Your task to perform on an android device: Open display settings Image 0: 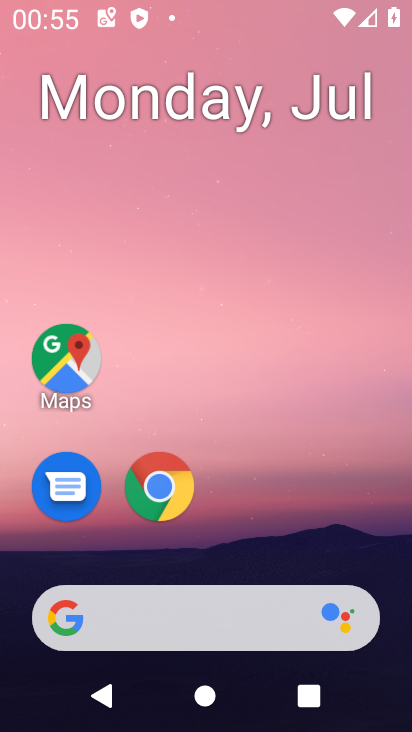
Step 0: press home button
Your task to perform on an android device: Open display settings Image 1: 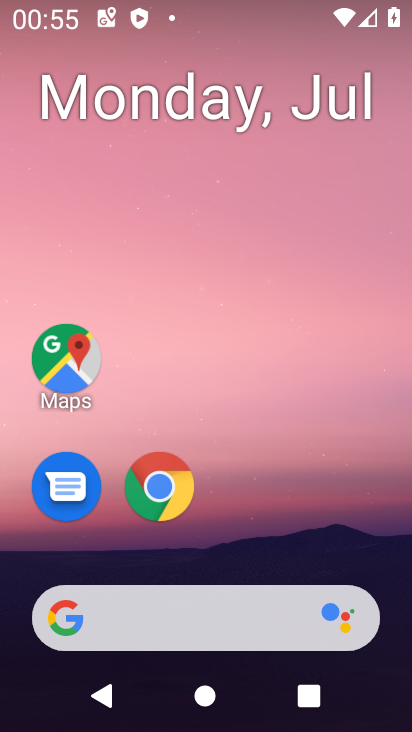
Step 1: drag from (345, 533) to (369, 106)
Your task to perform on an android device: Open display settings Image 2: 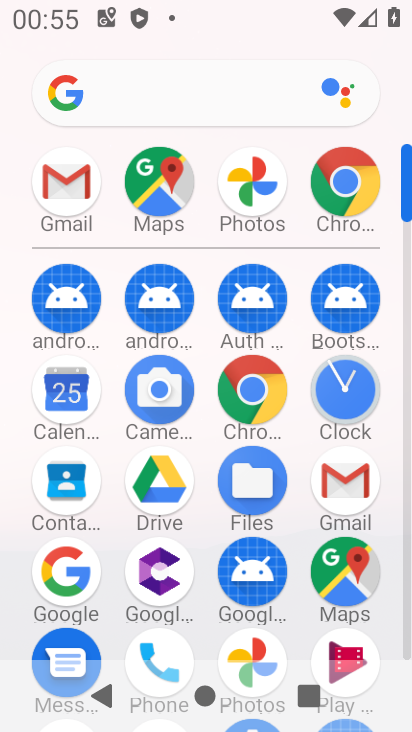
Step 2: drag from (402, 424) to (404, 333)
Your task to perform on an android device: Open display settings Image 3: 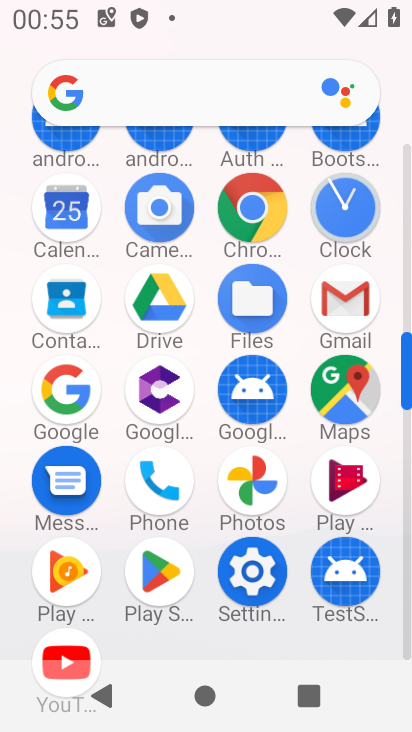
Step 3: click (260, 576)
Your task to perform on an android device: Open display settings Image 4: 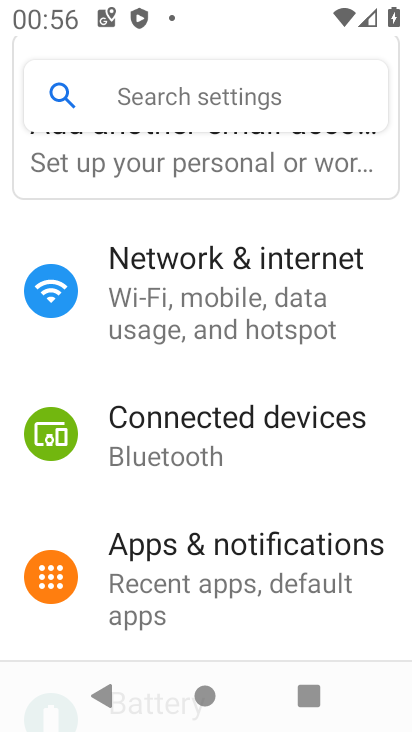
Step 4: drag from (346, 476) to (346, 401)
Your task to perform on an android device: Open display settings Image 5: 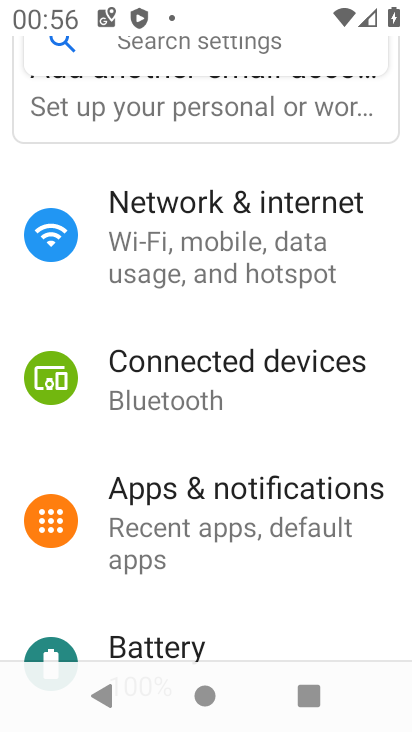
Step 5: drag from (356, 576) to (364, 494)
Your task to perform on an android device: Open display settings Image 6: 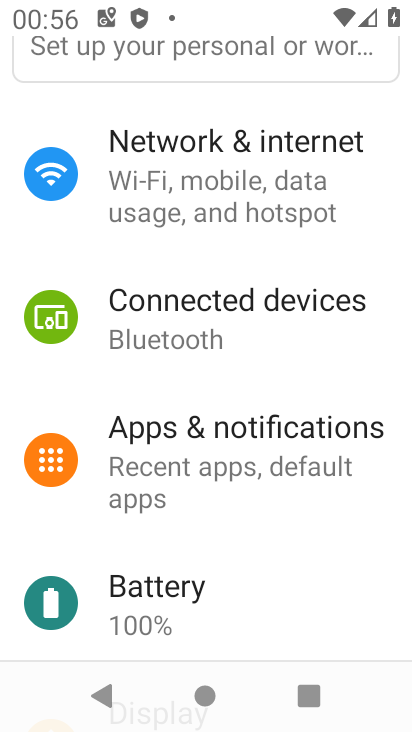
Step 6: drag from (365, 586) to (368, 493)
Your task to perform on an android device: Open display settings Image 7: 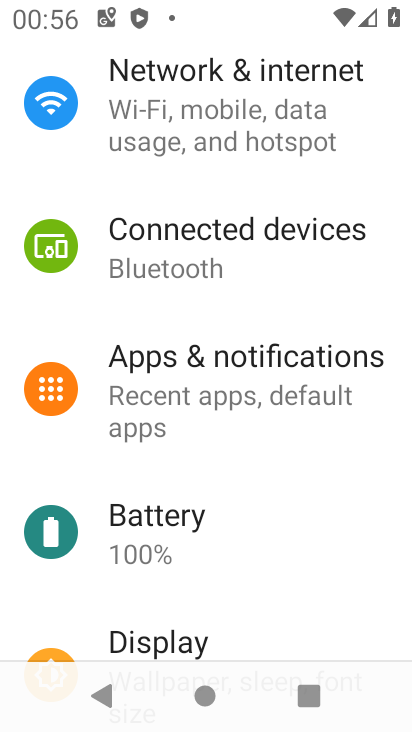
Step 7: drag from (360, 578) to (367, 474)
Your task to perform on an android device: Open display settings Image 8: 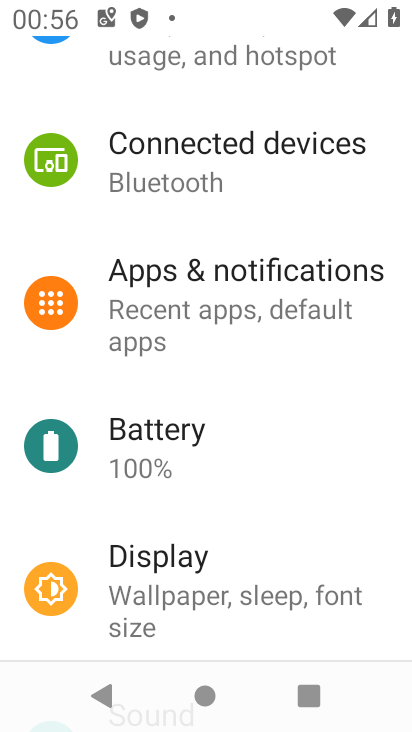
Step 8: drag from (371, 562) to (360, 446)
Your task to perform on an android device: Open display settings Image 9: 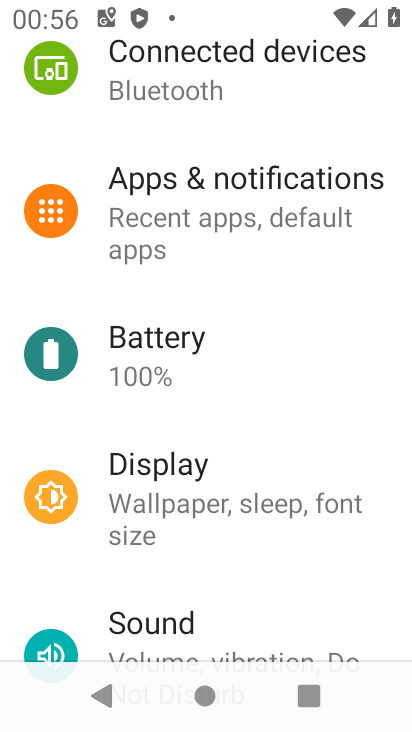
Step 9: drag from (357, 551) to (349, 427)
Your task to perform on an android device: Open display settings Image 10: 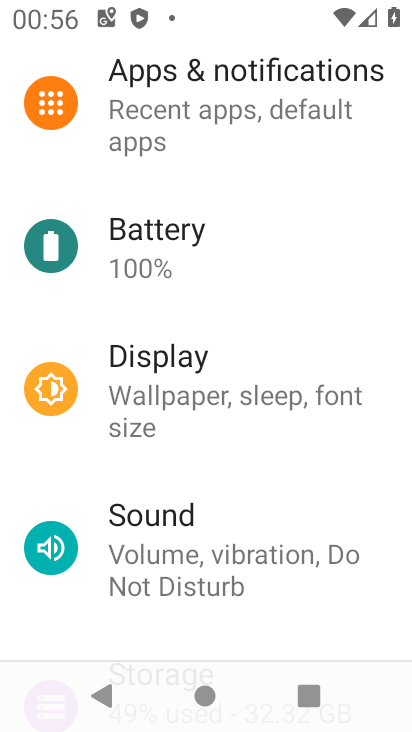
Step 10: drag from (336, 469) to (329, 306)
Your task to perform on an android device: Open display settings Image 11: 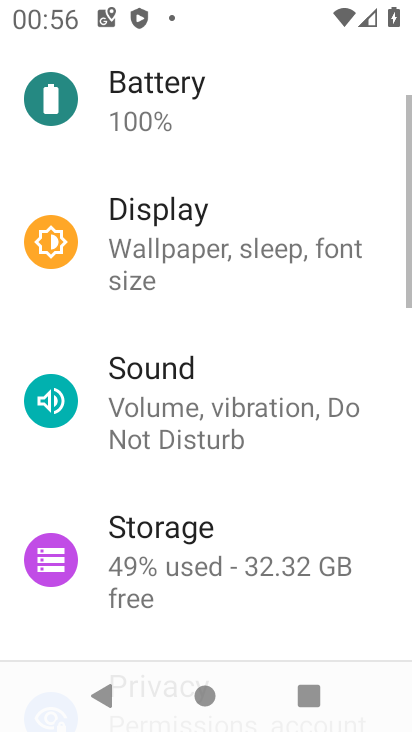
Step 11: drag from (312, 470) to (311, 362)
Your task to perform on an android device: Open display settings Image 12: 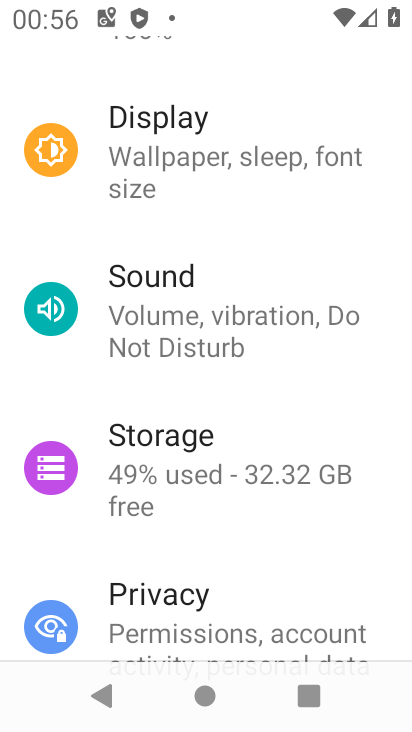
Step 12: click (284, 178)
Your task to perform on an android device: Open display settings Image 13: 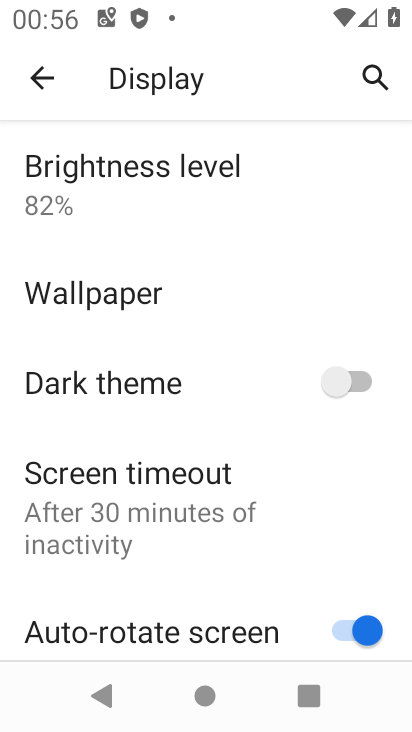
Step 13: task complete